Your task to perform on an android device: change notification settings in the gmail app Image 0: 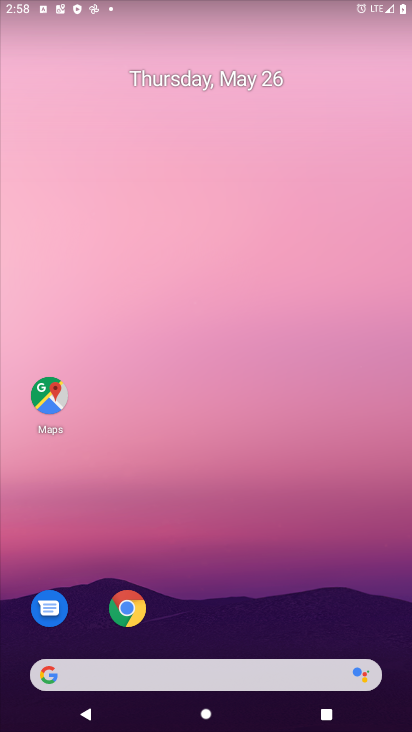
Step 0: drag from (355, 624) to (289, 117)
Your task to perform on an android device: change notification settings in the gmail app Image 1: 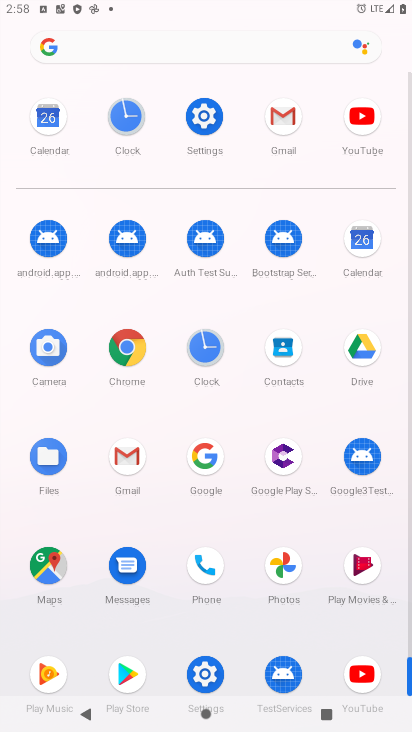
Step 1: click (124, 456)
Your task to perform on an android device: change notification settings in the gmail app Image 2: 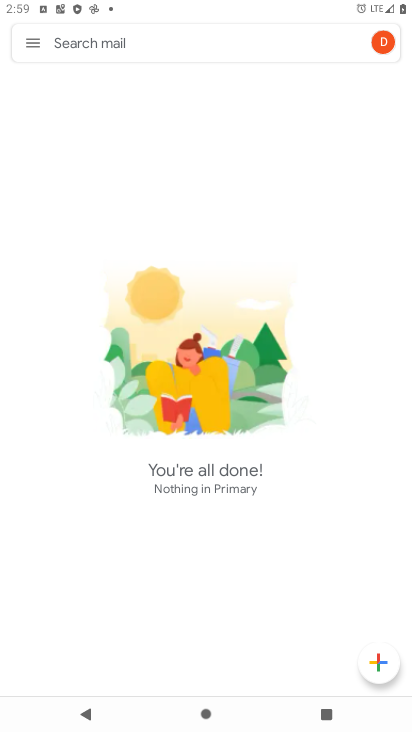
Step 2: click (41, 42)
Your task to perform on an android device: change notification settings in the gmail app Image 3: 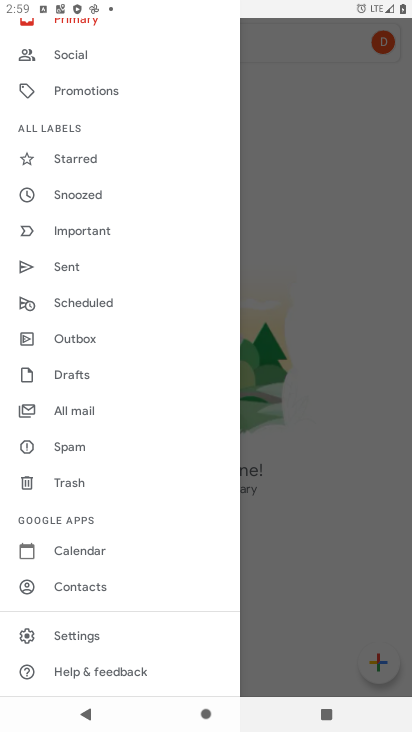
Step 3: drag from (100, 407) to (73, 185)
Your task to perform on an android device: change notification settings in the gmail app Image 4: 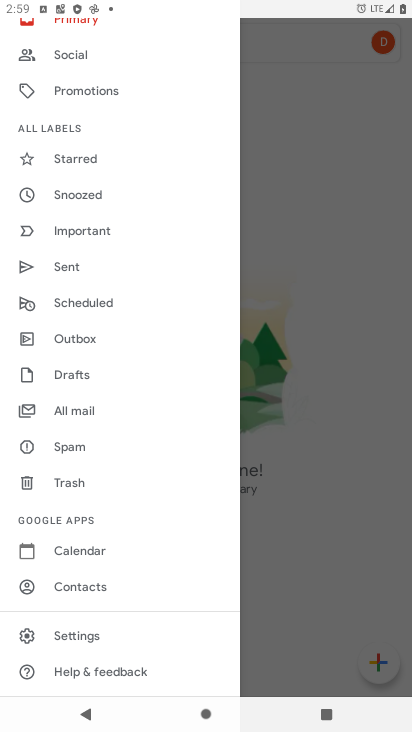
Step 4: click (91, 632)
Your task to perform on an android device: change notification settings in the gmail app Image 5: 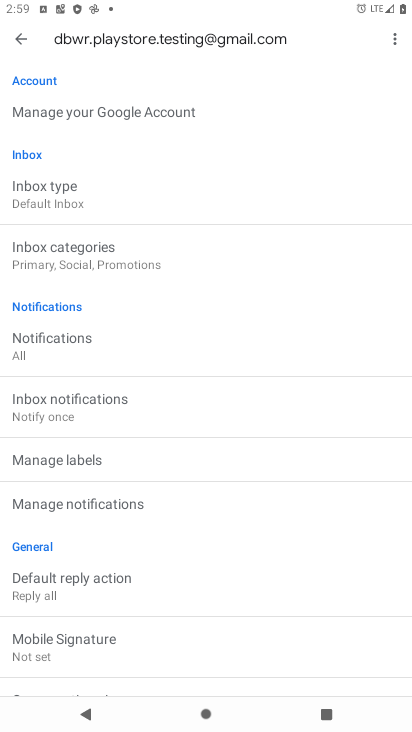
Step 5: click (70, 504)
Your task to perform on an android device: change notification settings in the gmail app Image 6: 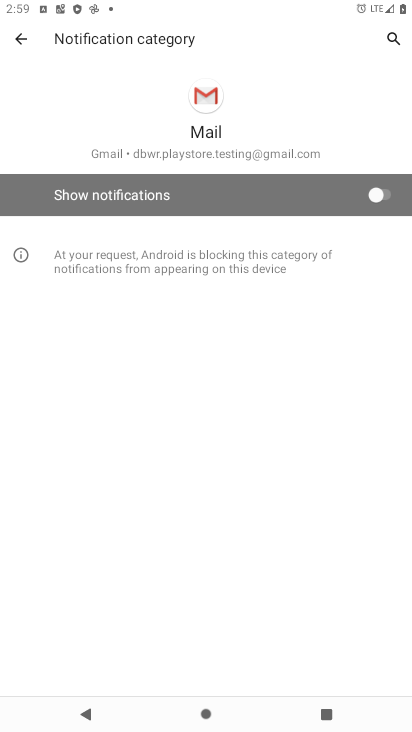
Step 6: click (369, 197)
Your task to perform on an android device: change notification settings in the gmail app Image 7: 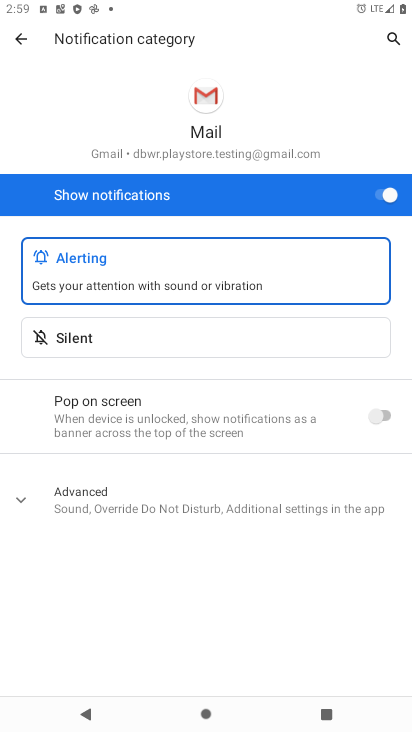
Step 7: task complete